Your task to perform on an android device: toggle airplane mode Image 0: 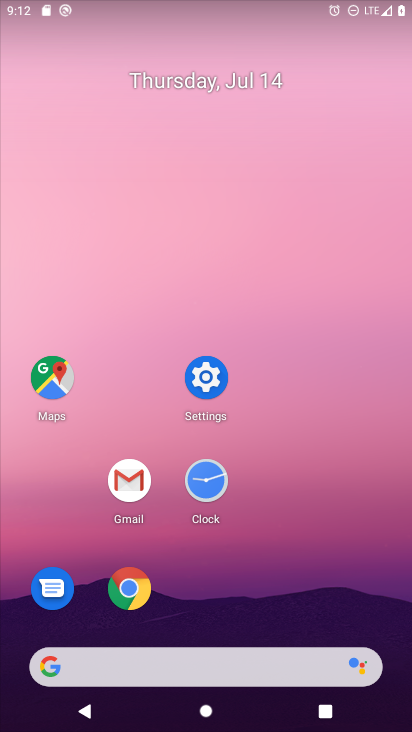
Step 0: click (220, 372)
Your task to perform on an android device: toggle airplane mode Image 1: 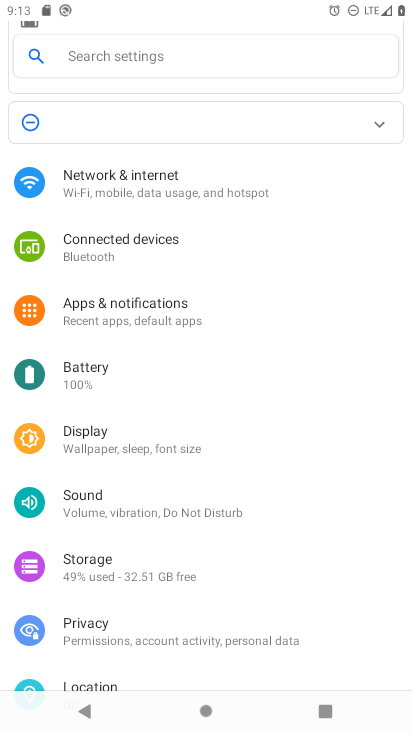
Step 1: click (154, 178)
Your task to perform on an android device: toggle airplane mode Image 2: 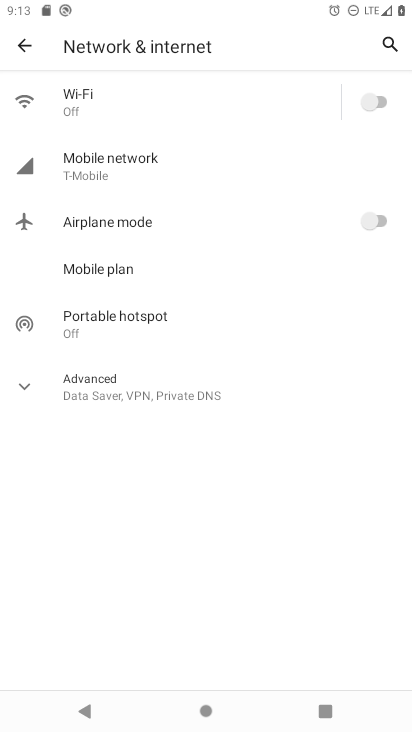
Step 2: click (24, 43)
Your task to perform on an android device: toggle airplane mode Image 3: 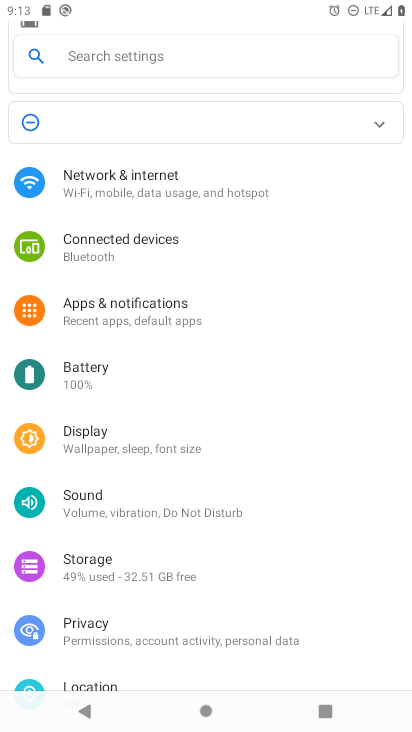
Step 3: click (115, 190)
Your task to perform on an android device: toggle airplane mode Image 4: 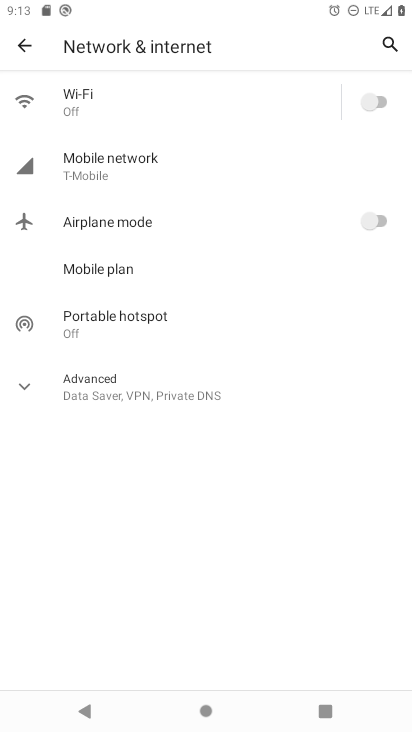
Step 4: click (380, 216)
Your task to perform on an android device: toggle airplane mode Image 5: 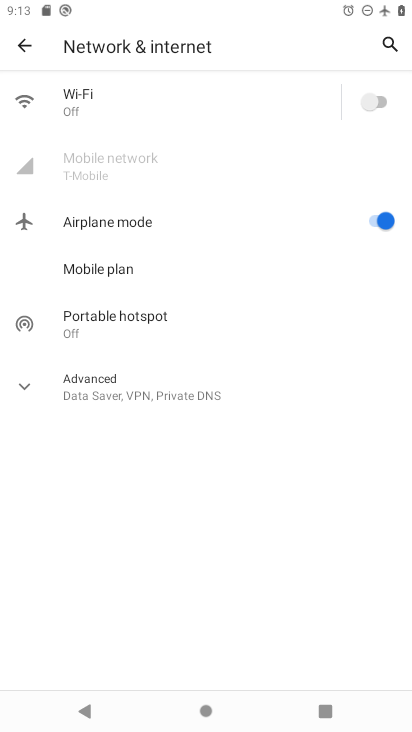
Step 5: task complete